Your task to perform on an android device: Add "lg ultragear" to the cart on newegg Image 0: 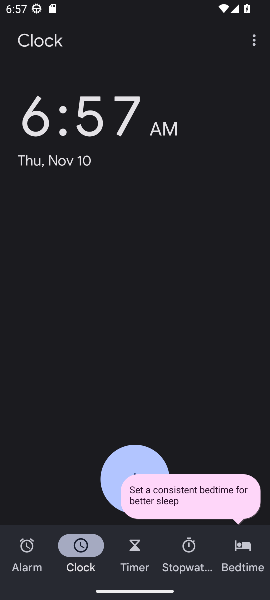
Step 0: press home button
Your task to perform on an android device: Add "lg ultragear" to the cart on newegg Image 1: 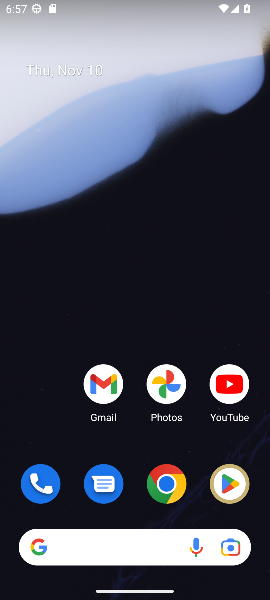
Step 1: click (168, 485)
Your task to perform on an android device: Add "lg ultragear" to the cart on newegg Image 2: 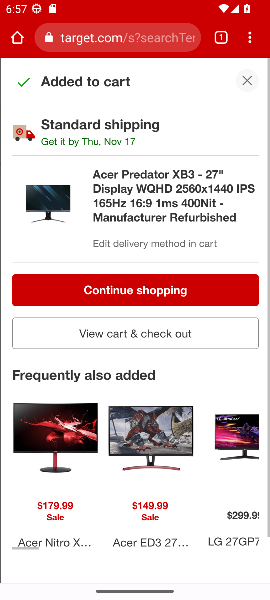
Step 2: click (101, 36)
Your task to perform on an android device: Add "lg ultragear" to the cart on newegg Image 3: 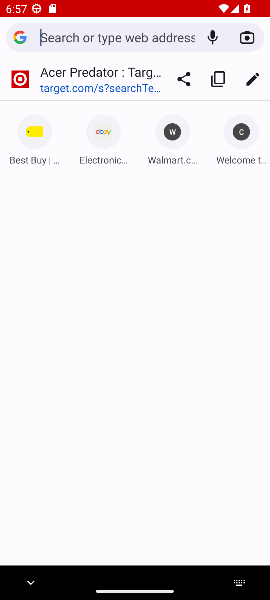
Step 3: type "newegg.com"
Your task to perform on an android device: Add "lg ultragear" to the cart on newegg Image 4: 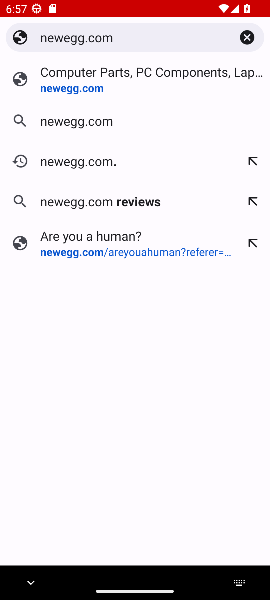
Step 4: click (88, 85)
Your task to perform on an android device: Add "lg ultragear" to the cart on newegg Image 5: 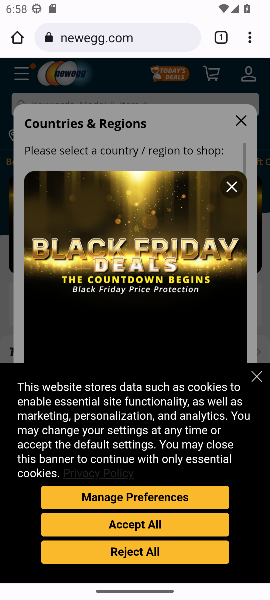
Step 5: click (238, 185)
Your task to perform on an android device: Add "lg ultragear" to the cart on newegg Image 6: 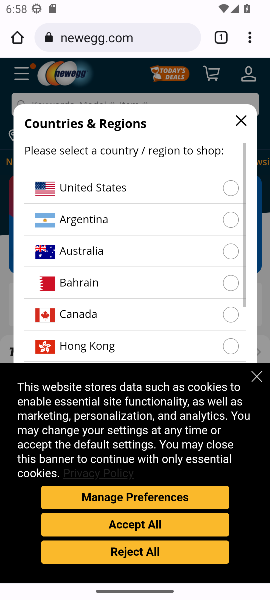
Step 6: click (232, 189)
Your task to perform on an android device: Add "lg ultragear" to the cart on newegg Image 7: 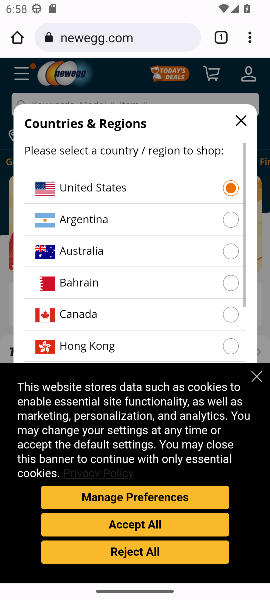
Step 7: click (255, 376)
Your task to perform on an android device: Add "lg ultragear" to the cart on newegg Image 8: 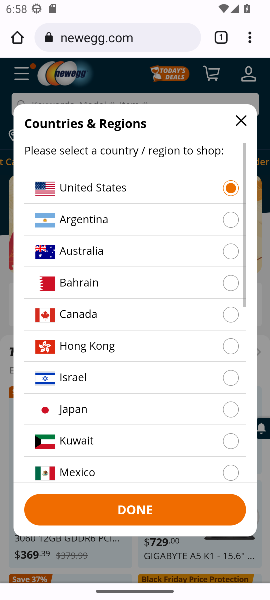
Step 8: click (125, 514)
Your task to perform on an android device: Add "lg ultragear" to the cart on newegg Image 9: 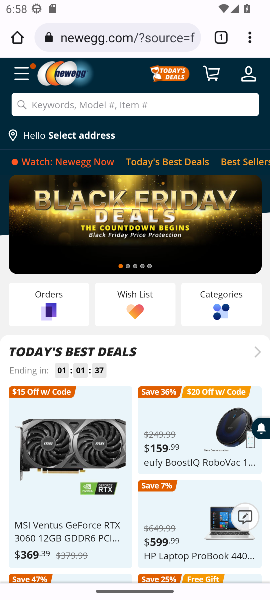
Step 9: click (94, 108)
Your task to perform on an android device: Add "lg ultragear" to the cart on newegg Image 10: 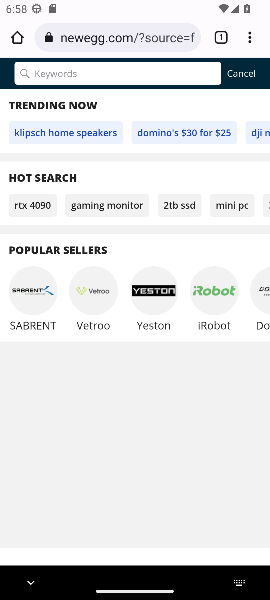
Step 10: type "lg ultragear"
Your task to perform on an android device: Add "lg ultragear" to the cart on newegg Image 11: 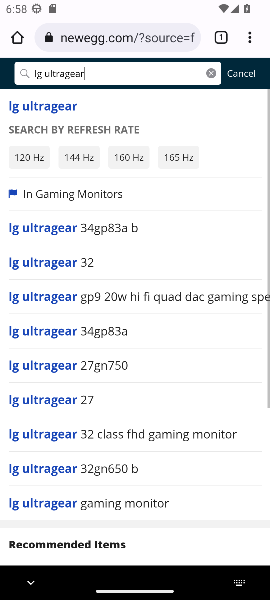
Step 11: click (21, 102)
Your task to perform on an android device: Add "lg ultragear" to the cart on newegg Image 12: 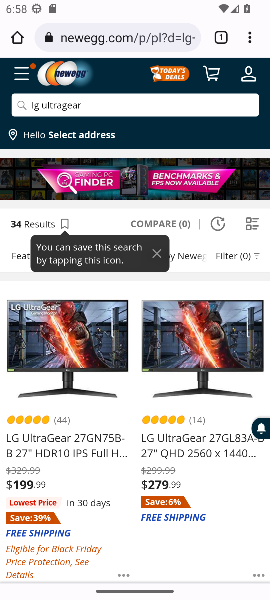
Step 12: click (68, 450)
Your task to perform on an android device: Add "lg ultragear" to the cart on newegg Image 13: 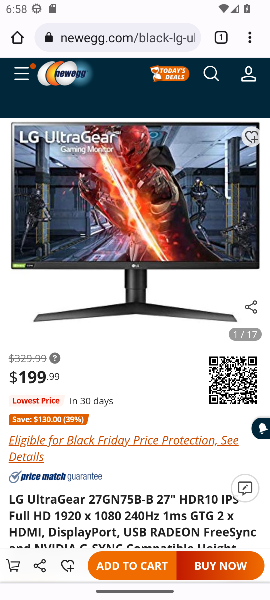
Step 13: drag from (128, 460) to (130, 384)
Your task to perform on an android device: Add "lg ultragear" to the cart on newegg Image 14: 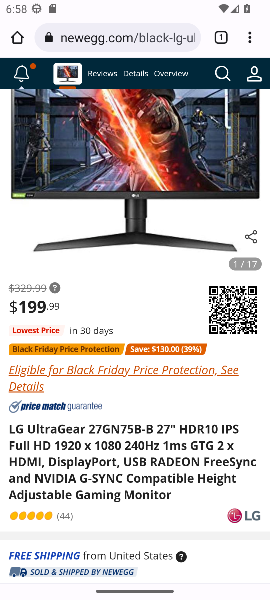
Step 14: click (134, 565)
Your task to perform on an android device: Add "lg ultragear" to the cart on newegg Image 15: 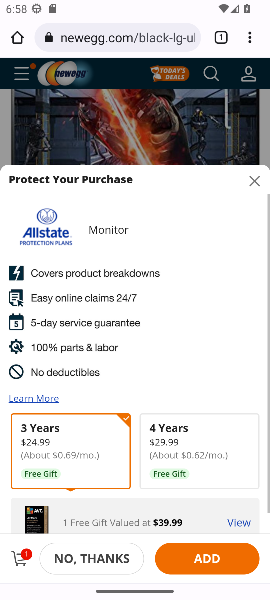
Step 15: task complete